Your task to perform on an android device: set the timer Image 0: 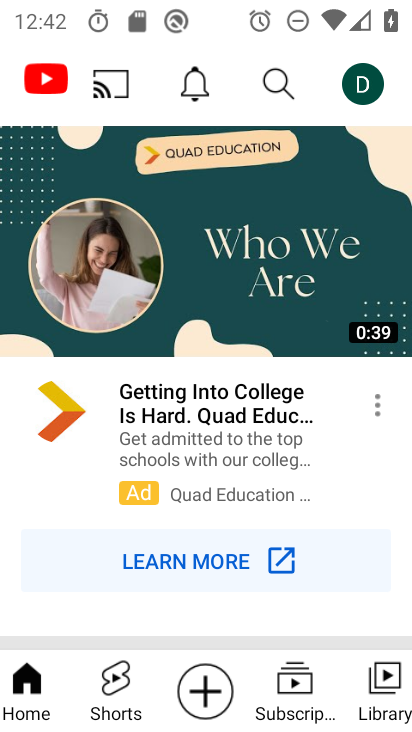
Step 0: press home button
Your task to perform on an android device: set the timer Image 1: 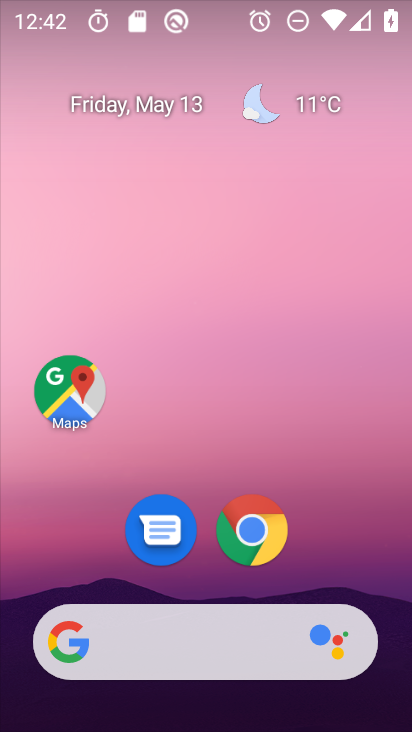
Step 1: drag from (156, 652) to (282, 94)
Your task to perform on an android device: set the timer Image 2: 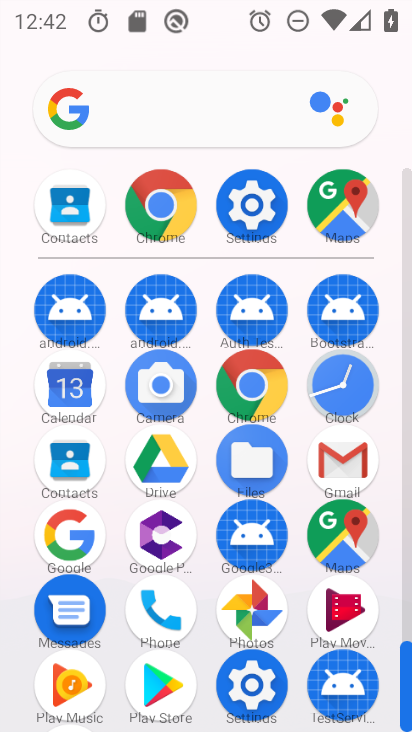
Step 2: click (345, 402)
Your task to perform on an android device: set the timer Image 3: 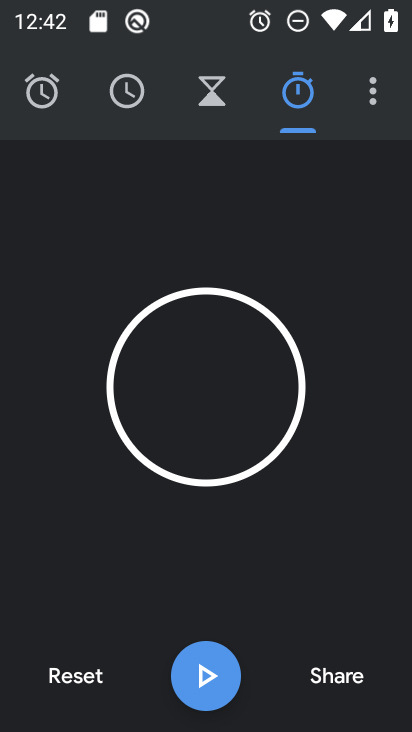
Step 3: click (214, 90)
Your task to perform on an android device: set the timer Image 4: 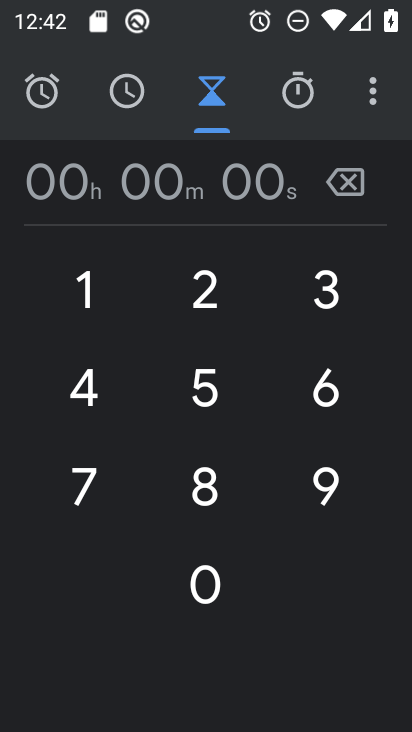
Step 4: click (89, 286)
Your task to perform on an android device: set the timer Image 5: 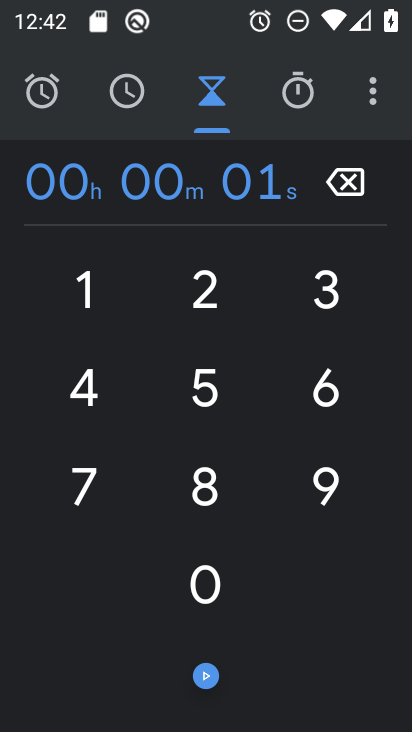
Step 5: click (222, 282)
Your task to perform on an android device: set the timer Image 6: 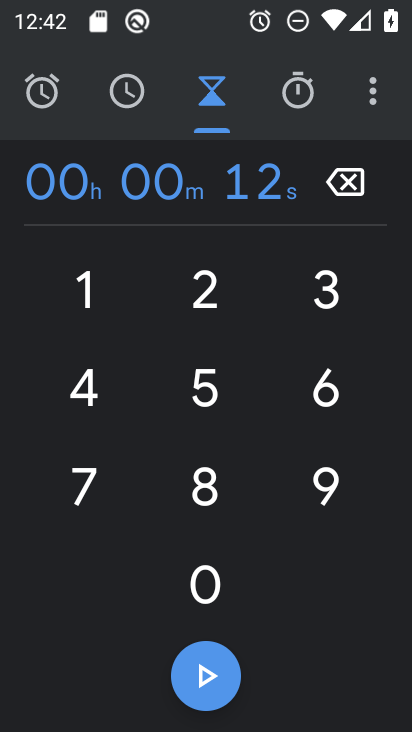
Step 6: click (224, 676)
Your task to perform on an android device: set the timer Image 7: 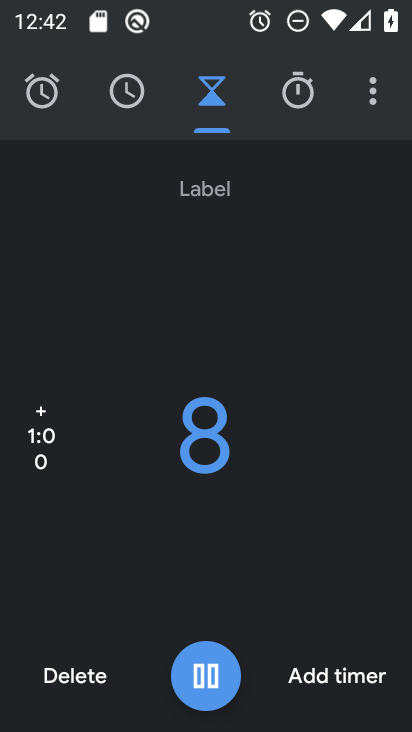
Step 7: click (209, 674)
Your task to perform on an android device: set the timer Image 8: 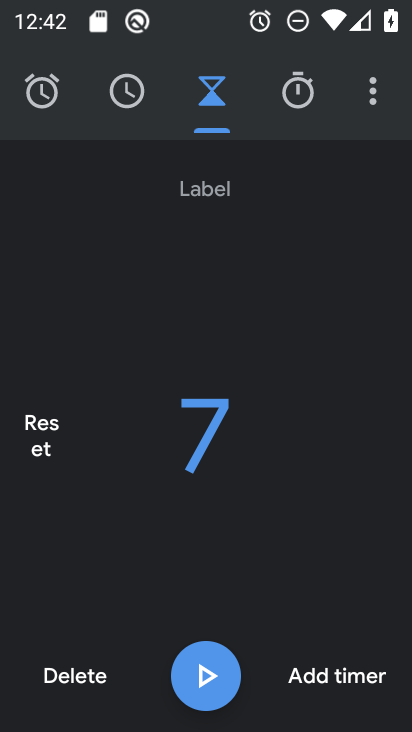
Step 8: task complete